Your task to perform on an android device: turn on notifications settings in the gmail app Image 0: 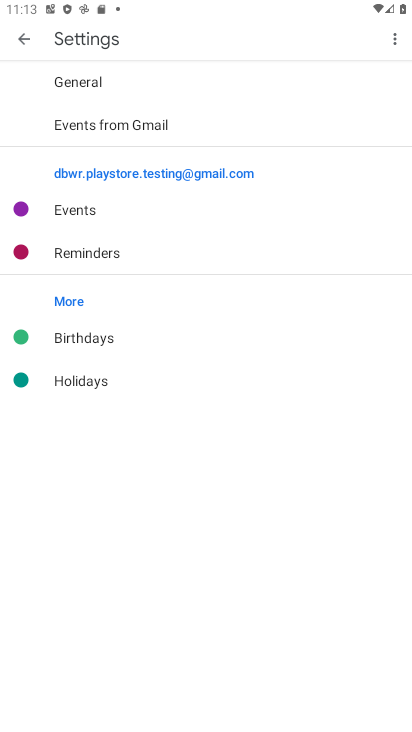
Step 0: press home button
Your task to perform on an android device: turn on notifications settings in the gmail app Image 1: 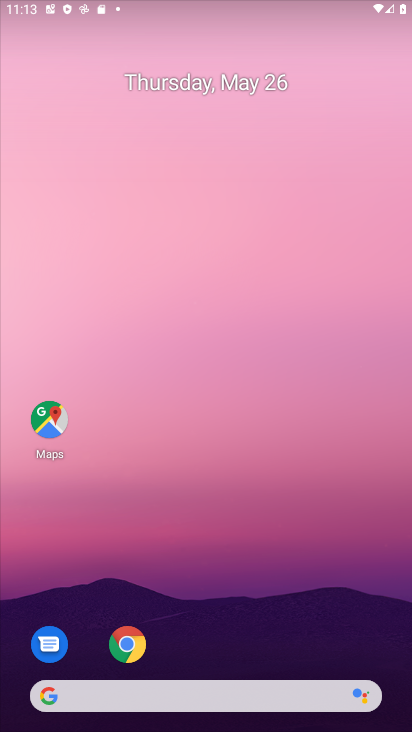
Step 1: drag from (364, 624) to (207, 80)
Your task to perform on an android device: turn on notifications settings in the gmail app Image 2: 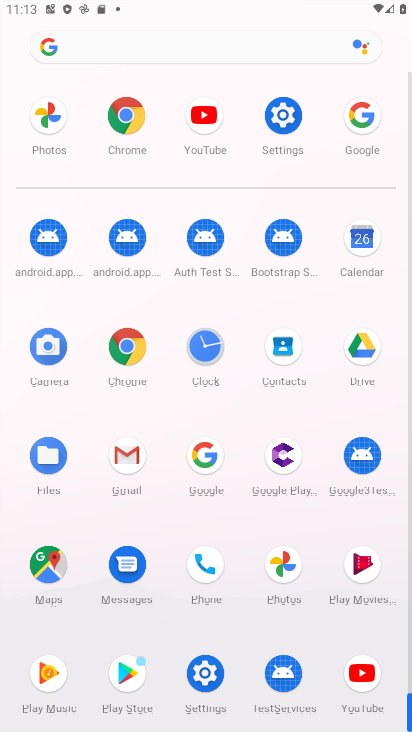
Step 2: click (108, 463)
Your task to perform on an android device: turn on notifications settings in the gmail app Image 3: 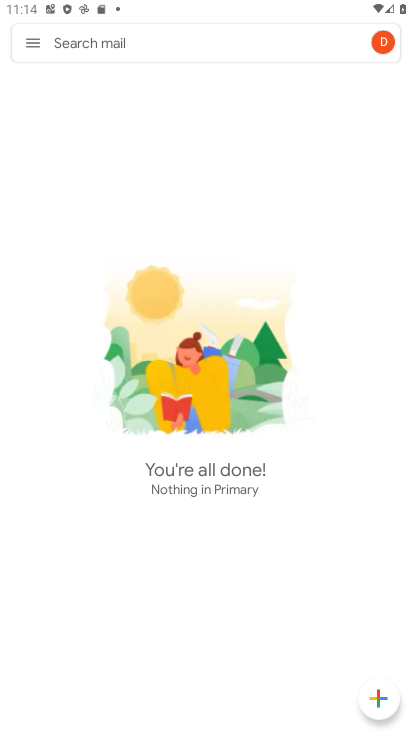
Step 3: click (33, 39)
Your task to perform on an android device: turn on notifications settings in the gmail app Image 4: 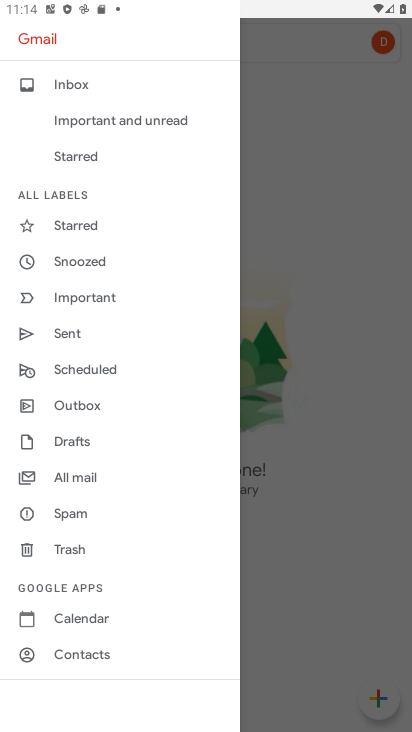
Step 4: drag from (86, 650) to (121, 181)
Your task to perform on an android device: turn on notifications settings in the gmail app Image 5: 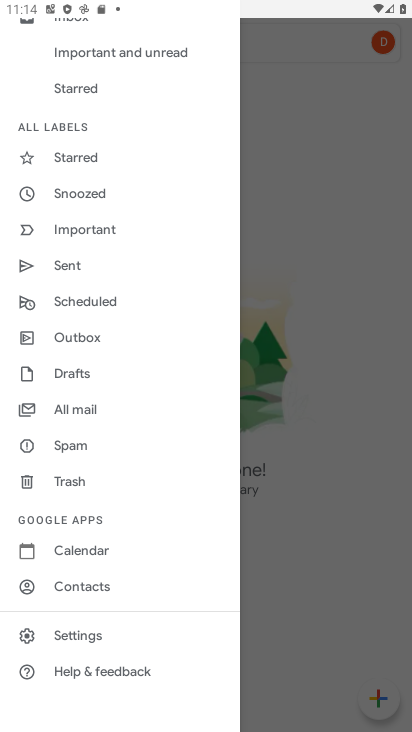
Step 5: click (97, 634)
Your task to perform on an android device: turn on notifications settings in the gmail app Image 6: 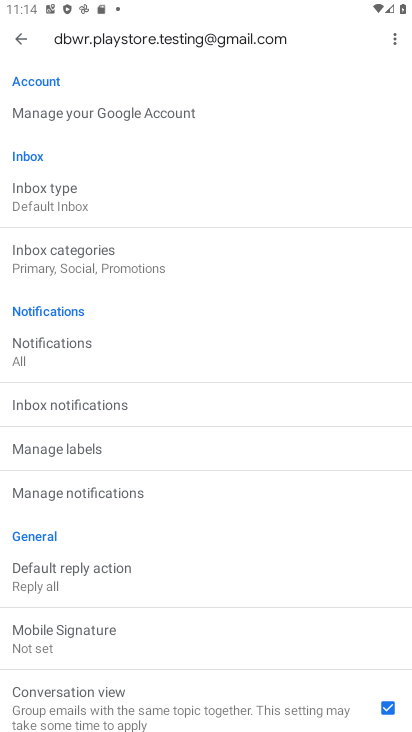
Step 6: click (87, 345)
Your task to perform on an android device: turn on notifications settings in the gmail app Image 7: 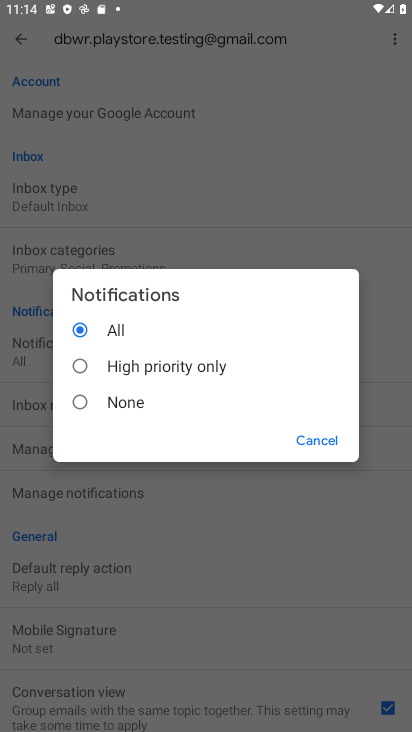
Step 7: task complete